Your task to perform on an android device: Open the phone app and click the voicemail tab. Image 0: 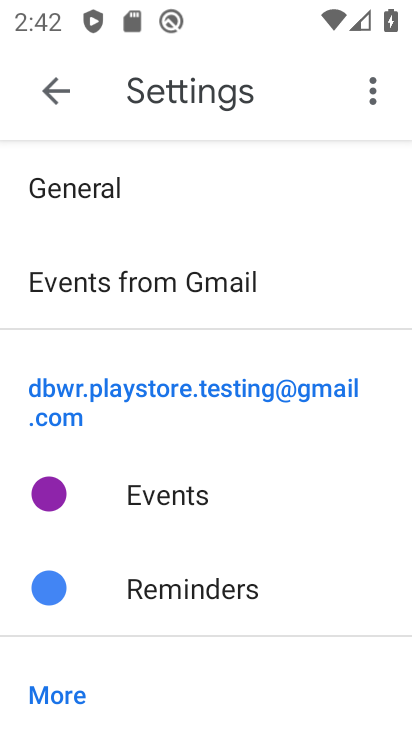
Step 0: press home button
Your task to perform on an android device: Open the phone app and click the voicemail tab. Image 1: 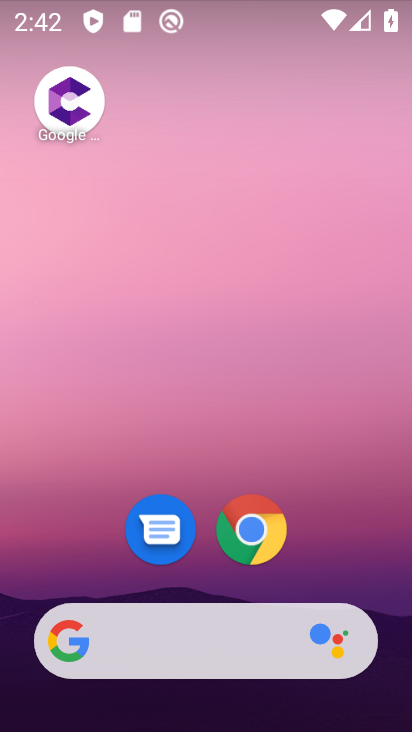
Step 1: drag from (212, 587) to (228, 208)
Your task to perform on an android device: Open the phone app and click the voicemail tab. Image 2: 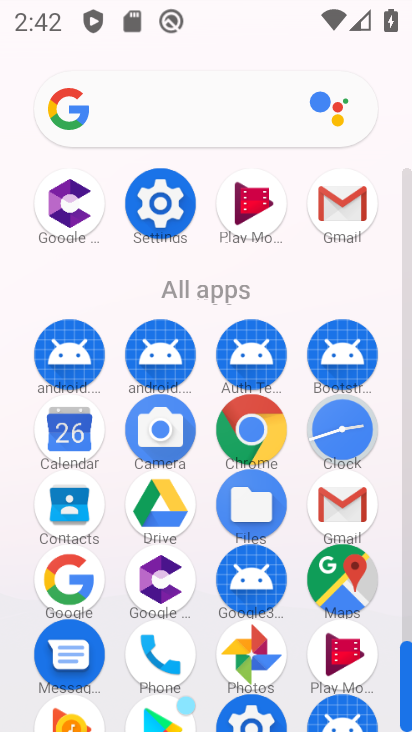
Step 2: click (158, 648)
Your task to perform on an android device: Open the phone app and click the voicemail tab. Image 3: 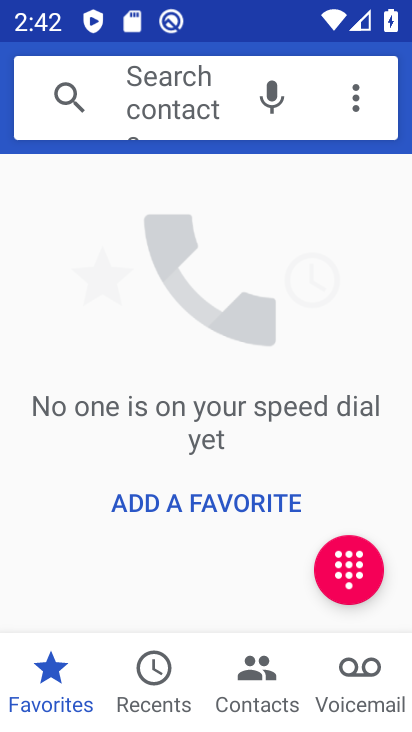
Step 3: click (385, 693)
Your task to perform on an android device: Open the phone app and click the voicemail tab. Image 4: 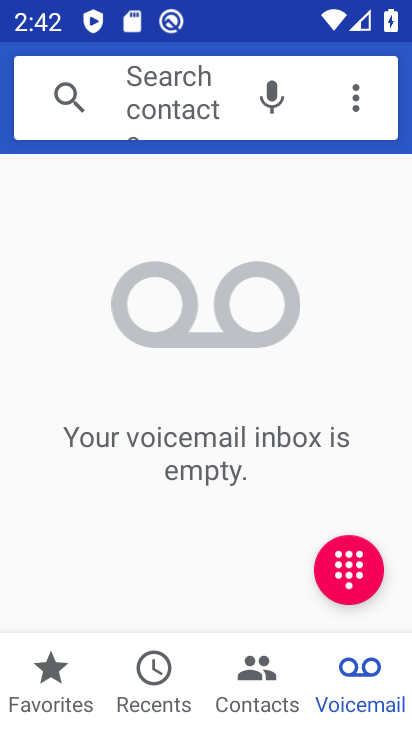
Step 4: task complete